Your task to perform on an android device: turn off data saver in the chrome app Image 0: 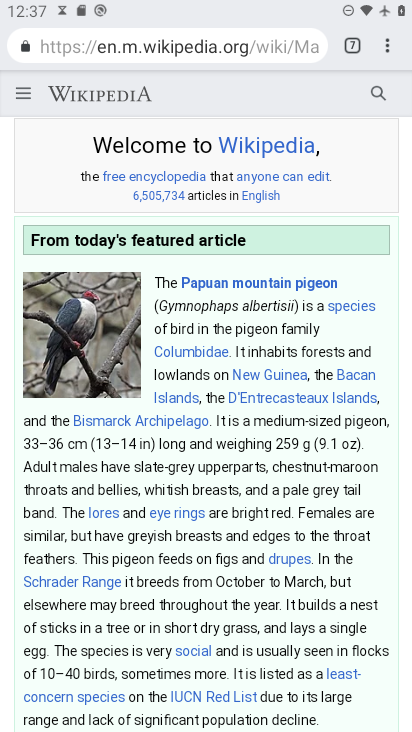
Step 0: click (395, 46)
Your task to perform on an android device: turn off data saver in the chrome app Image 1: 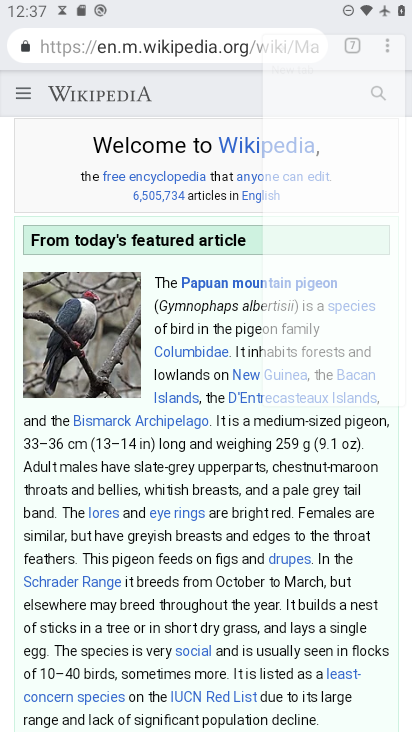
Step 1: click (390, 46)
Your task to perform on an android device: turn off data saver in the chrome app Image 2: 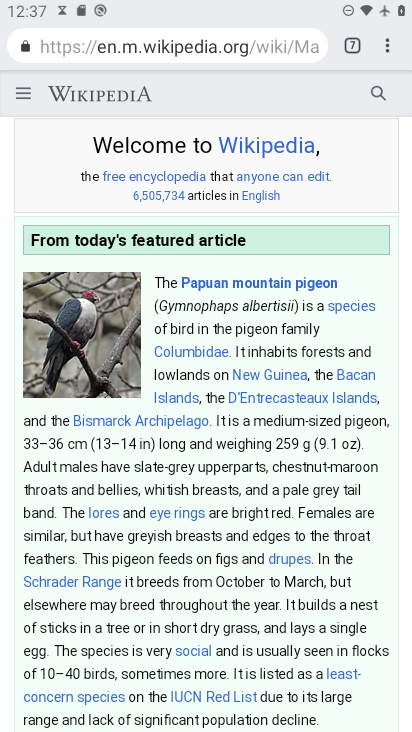
Step 2: drag from (386, 49) to (213, 547)
Your task to perform on an android device: turn off data saver in the chrome app Image 3: 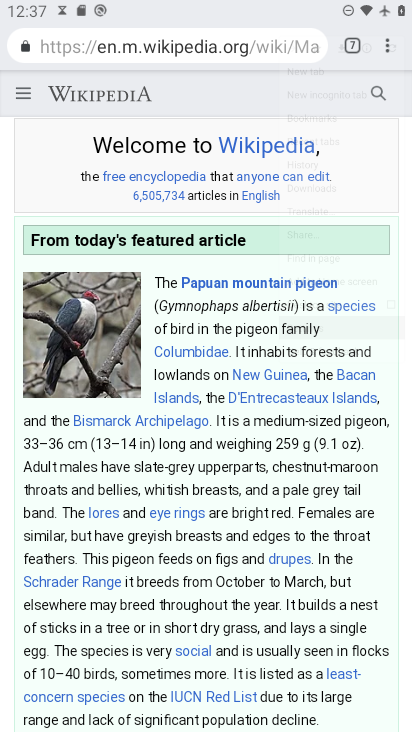
Step 3: click (213, 547)
Your task to perform on an android device: turn off data saver in the chrome app Image 4: 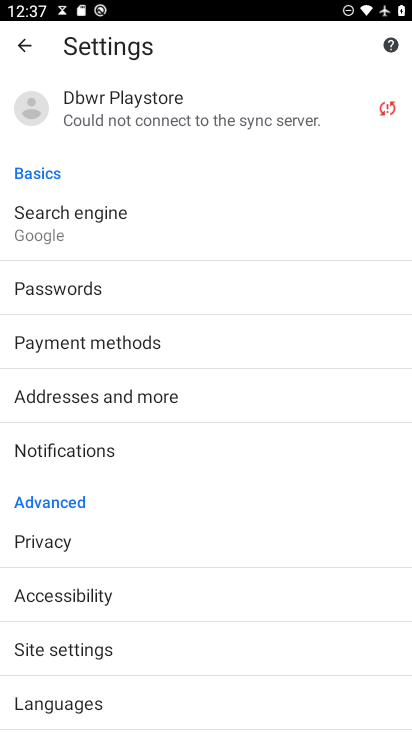
Step 4: drag from (63, 641) to (70, 236)
Your task to perform on an android device: turn off data saver in the chrome app Image 5: 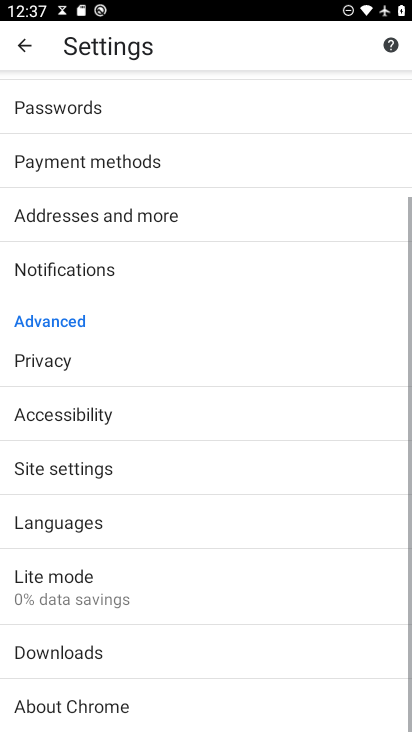
Step 5: drag from (149, 576) to (155, 290)
Your task to perform on an android device: turn off data saver in the chrome app Image 6: 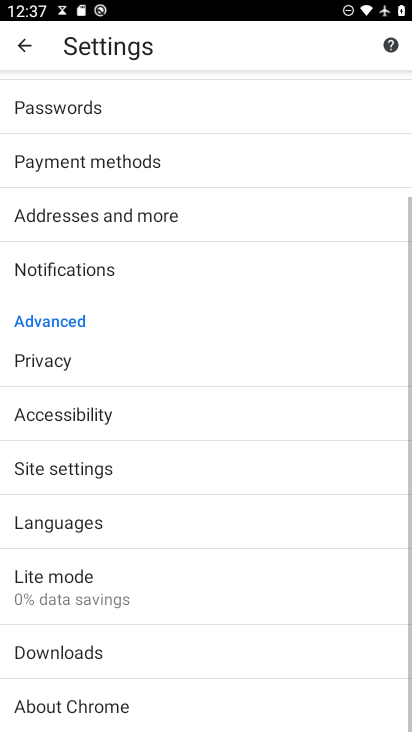
Step 6: click (60, 579)
Your task to perform on an android device: turn off data saver in the chrome app Image 7: 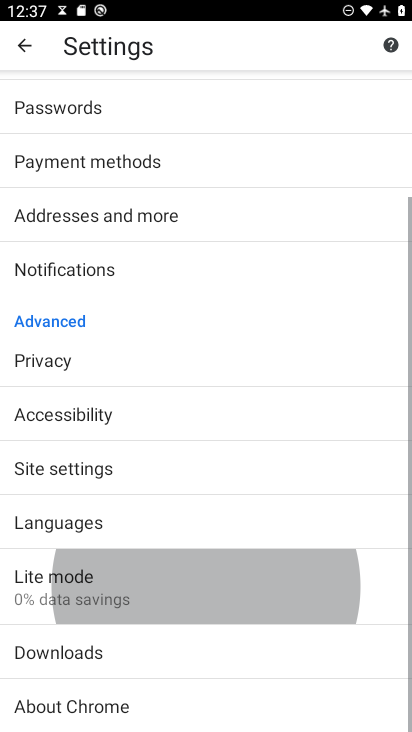
Step 7: click (60, 579)
Your task to perform on an android device: turn off data saver in the chrome app Image 8: 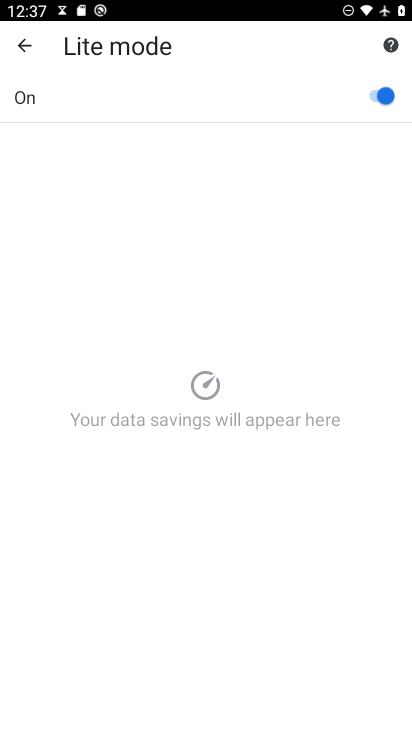
Step 8: click (379, 91)
Your task to perform on an android device: turn off data saver in the chrome app Image 9: 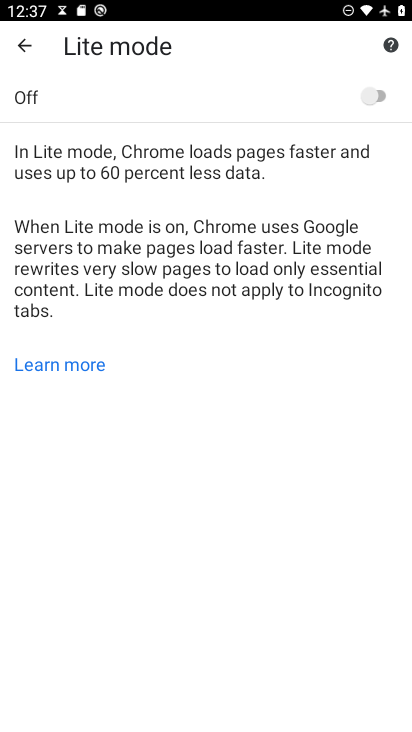
Step 9: task complete